Your task to perform on an android device: Go to calendar. Show me events next week Image 0: 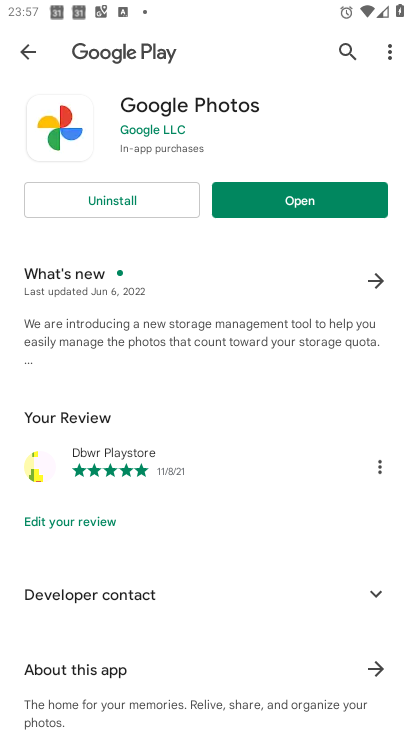
Step 0: press home button
Your task to perform on an android device: Go to calendar. Show me events next week Image 1: 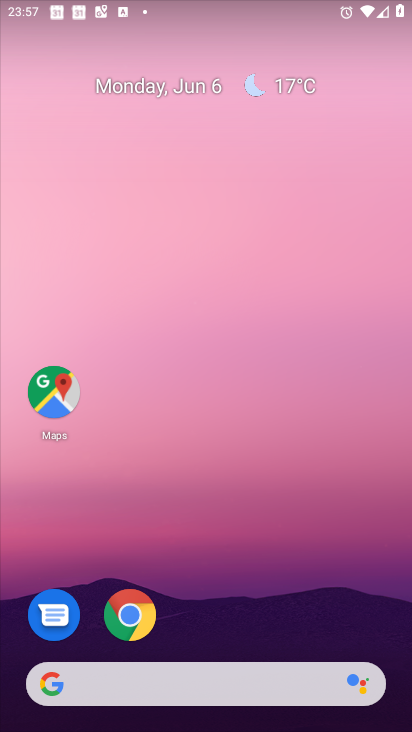
Step 1: drag from (386, 660) to (373, 238)
Your task to perform on an android device: Go to calendar. Show me events next week Image 2: 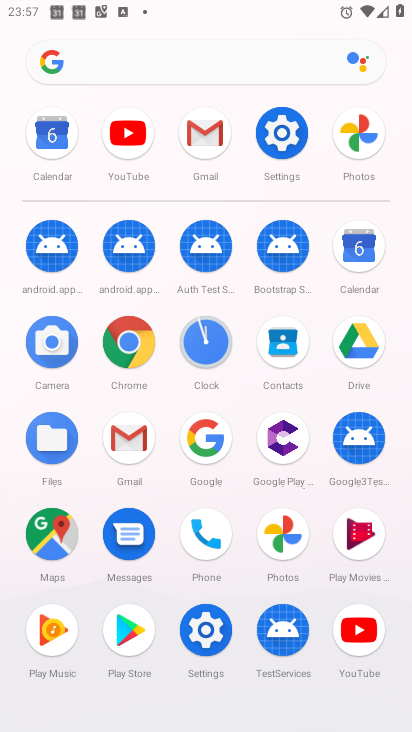
Step 2: click (349, 257)
Your task to perform on an android device: Go to calendar. Show me events next week Image 3: 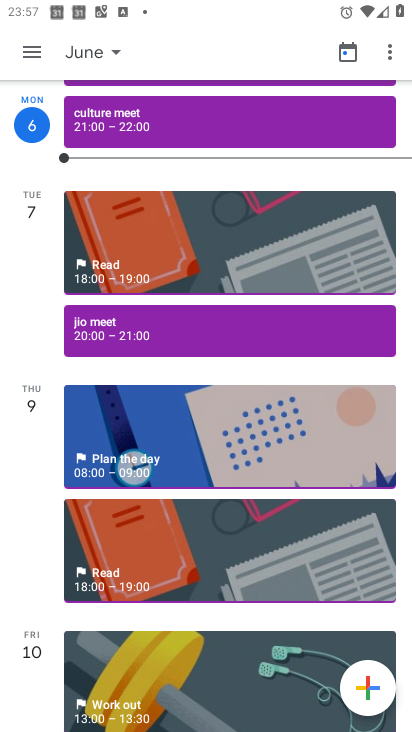
Step 3: drag from (277, 195) to (264, 515)
Your task to perform on an android device: Go to calendar. Show me events next week Image 4: 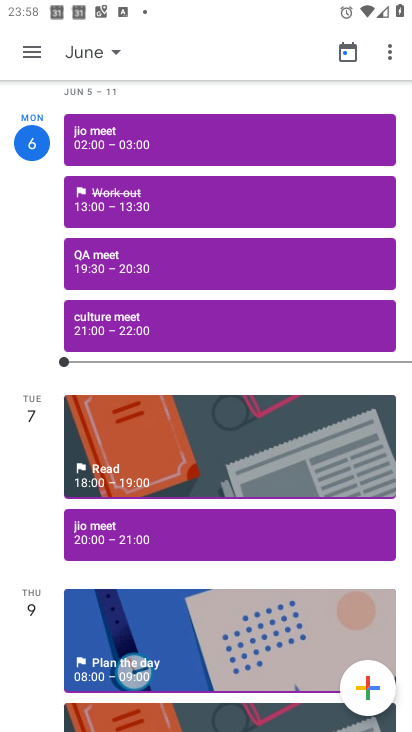
Step 4: click (111, 48)
Your task to perform on an android device: Go to calendar. Show me events next week Image 5: 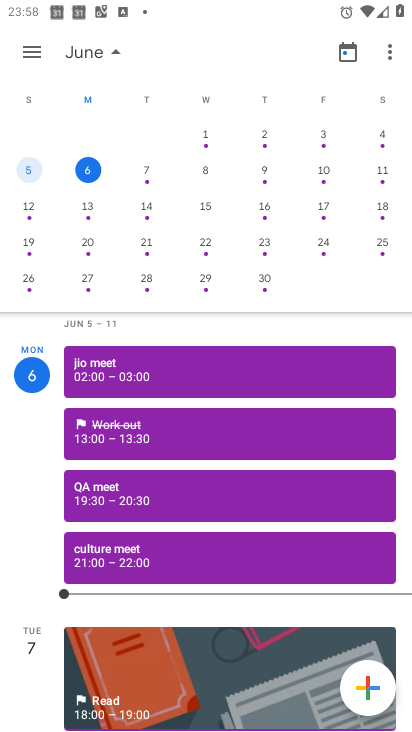
Step 5: click (145, 207)
Your task to perform on an android device: Go to calendar. Show me events next week Image 6: 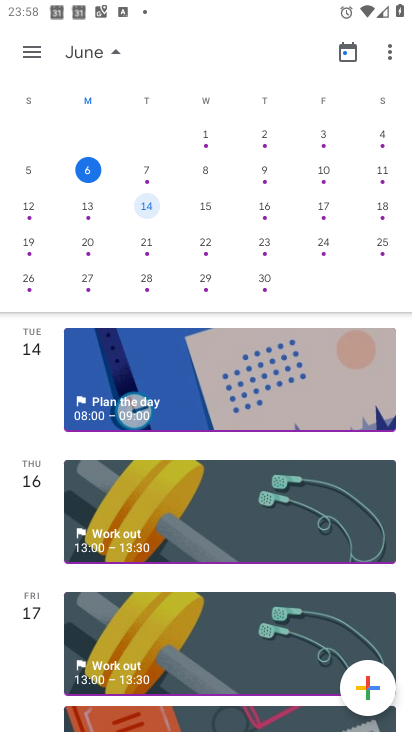
Step 6: click (37, 53)
Your task to perform on an android device: Go to calendar. Show me events next week Image 7: 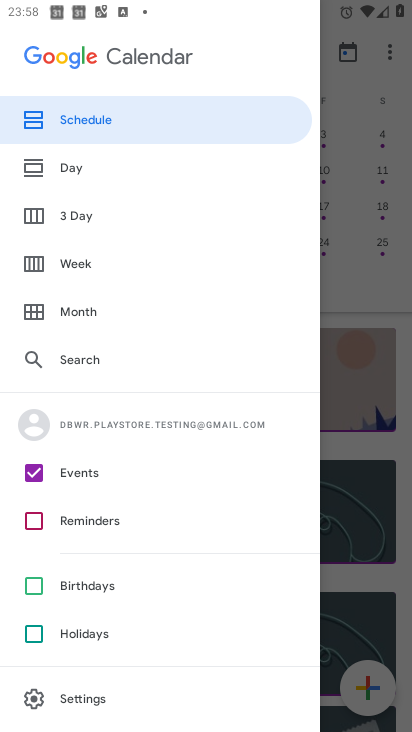
Step 7: click (60, 265)
Your task to perform on an android device: Go to calendar. Show me events next week Image 8: 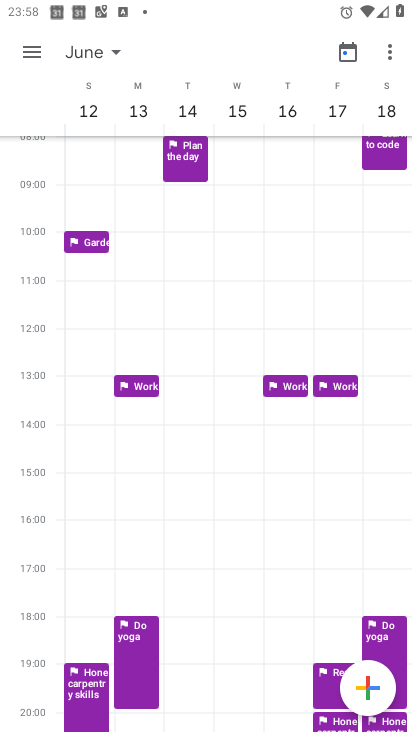
Step 8: click (42, 49)
Your task to perform on an android device: Go to calendar. Show me events next week Image 9: 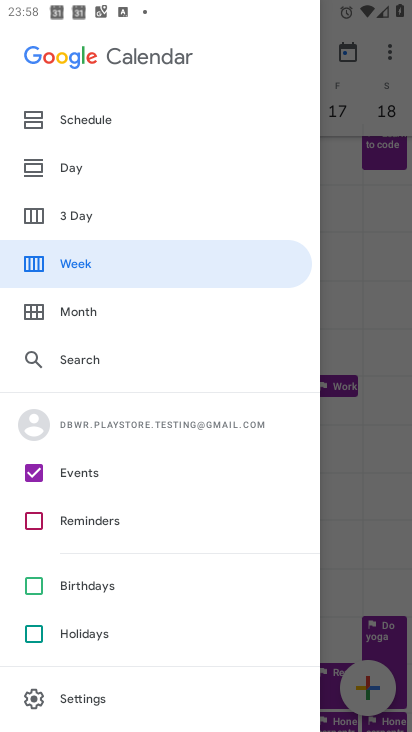
Step 9: click (102, 117)
Your task to perform on an android device: Go to calendar. Show me events next week Image 10: 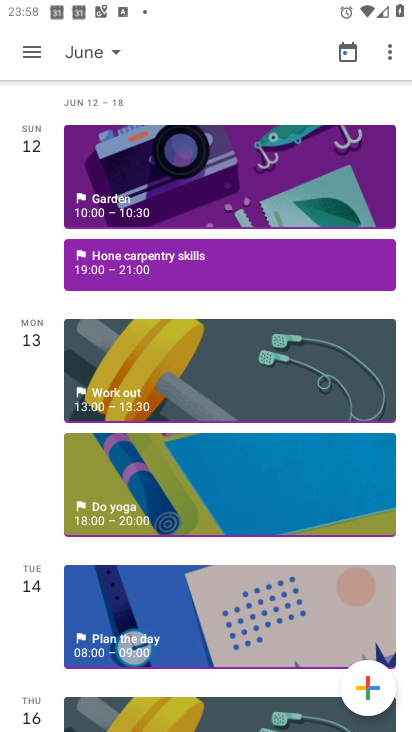
Step 10: task complete